Your task to perform on an android device: Play the last video I watched on Youtube Image 0: 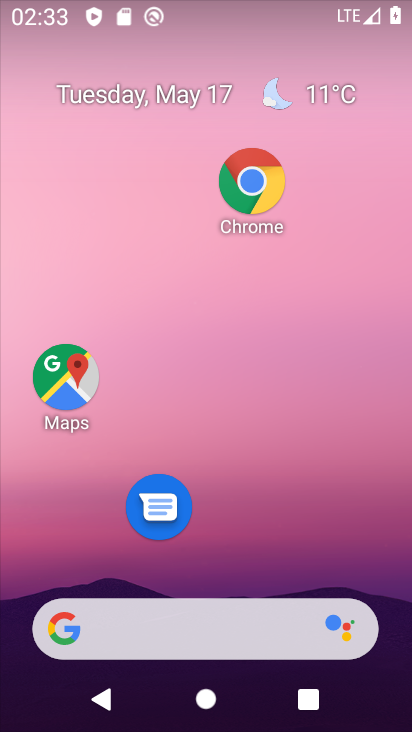
Step 0: drag from (261, 489) to (411, 544)
Your task to perform on an android device: Play the last video I watched on Youtube Image 1: 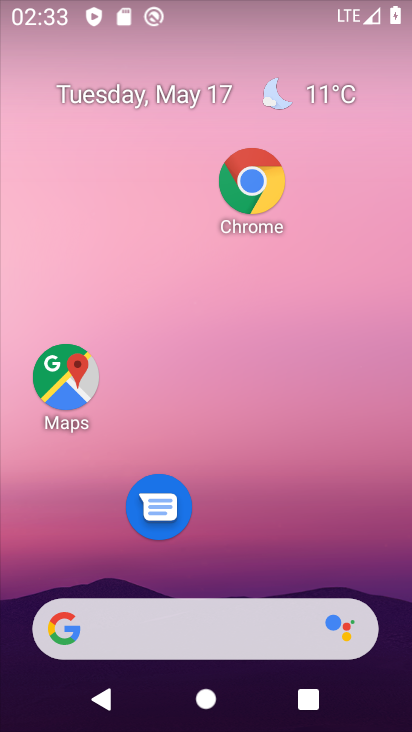
Step 1: drag from (199, 570) to (180, 11)
Your task to perform on an android device: Play the last video I watched on Youtube Image 2: 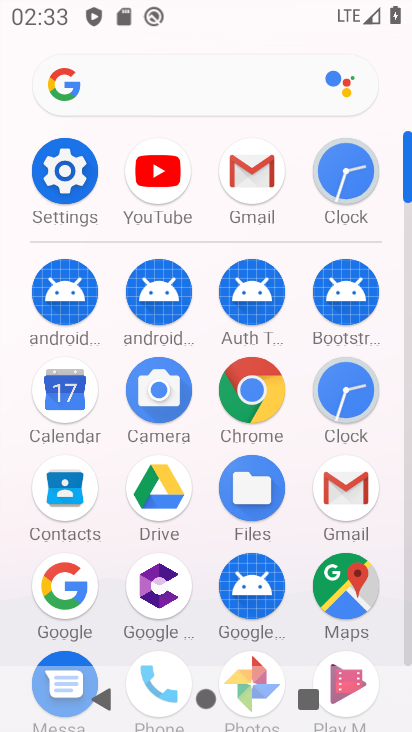
Step 2: click (152, 167)
Your task to perform on an android device: Play the last video I watched on Youtube Image 3: 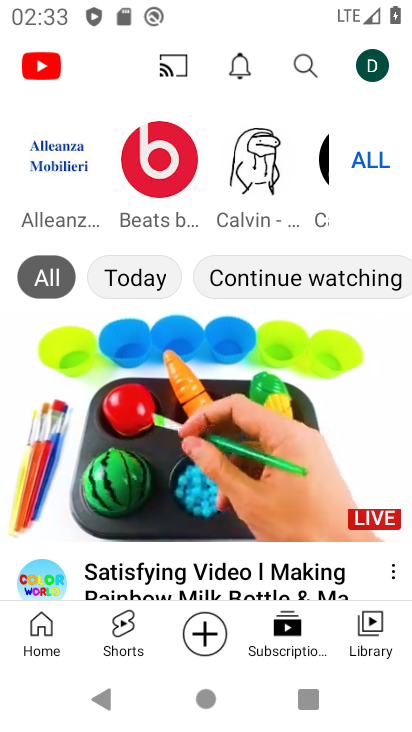
Step 3: click (373, 617)
Your task to perform on an android device: Play the last video I watched on Youtube Image 4: 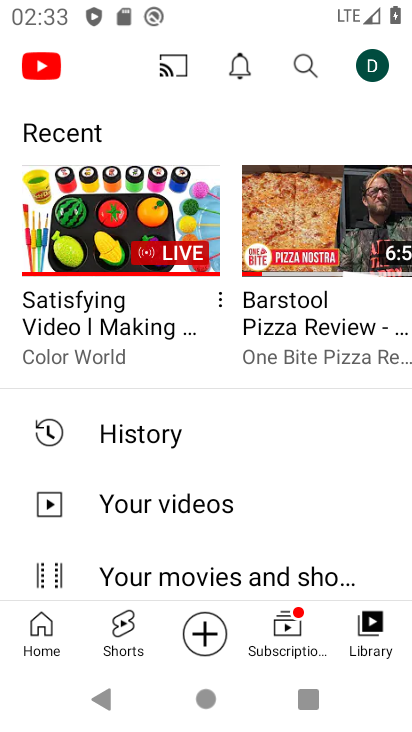
Step 4: click (161, 215)
Your task to perform on an android device: Play the last video I watched on Youtube Image 5: 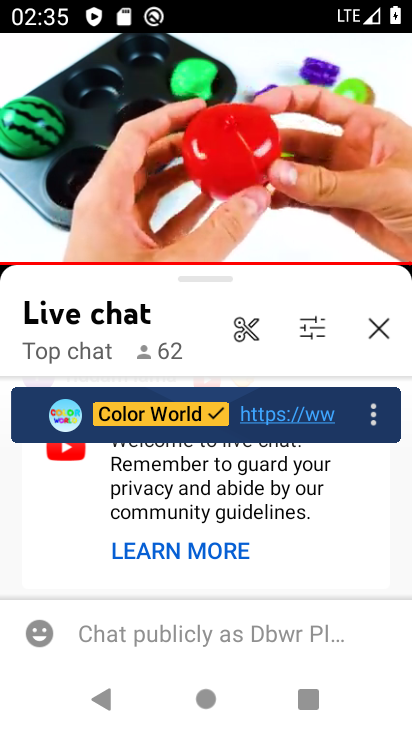
Step 5: task complete